Your task to perform on an android device: create a new album in the google photos Image 0: 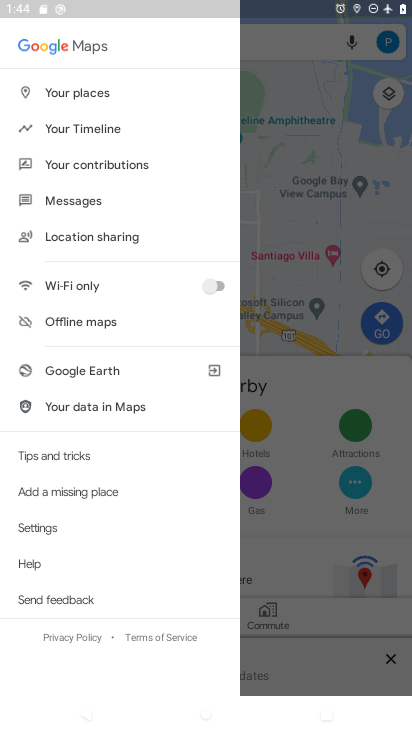
Step 0: press home button
Your task to perform on an android device: create a new album in the google photos Image 1: 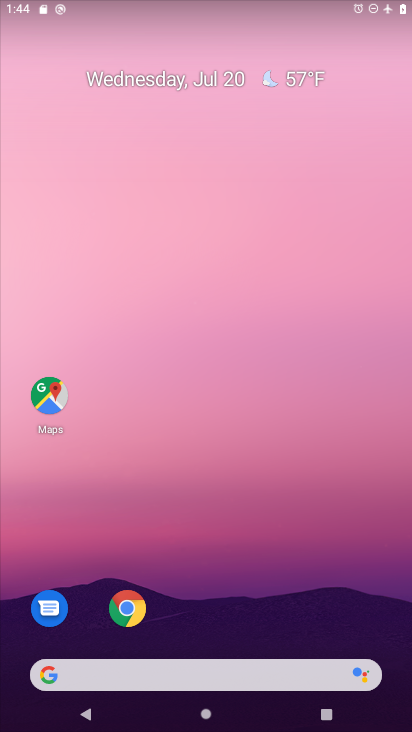
Step 1: drag from (226, 697) to (187, 223)
Your task to perform on an android device: create a new album in the google photos Image 2: 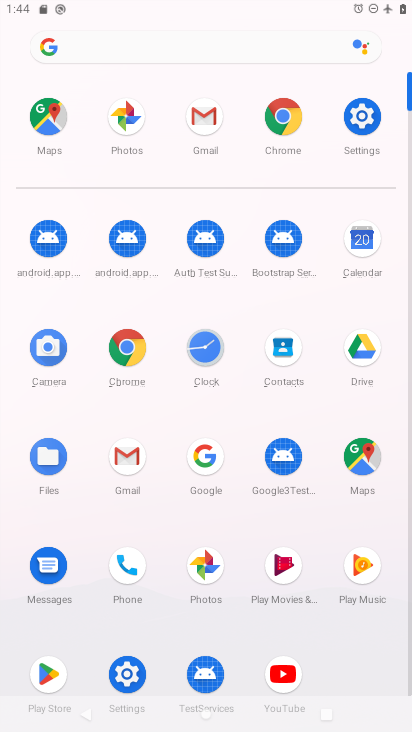
Step 2: click (127, 112)
Your task to perform on an android device: create a new album in the google photos Image 3: 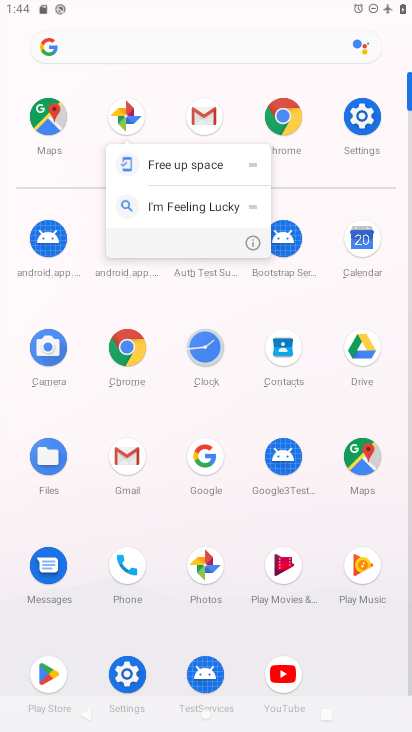
Step 3: click (127, 112)
Your task to perform on an android device: create a new album in the google photos Image 4: 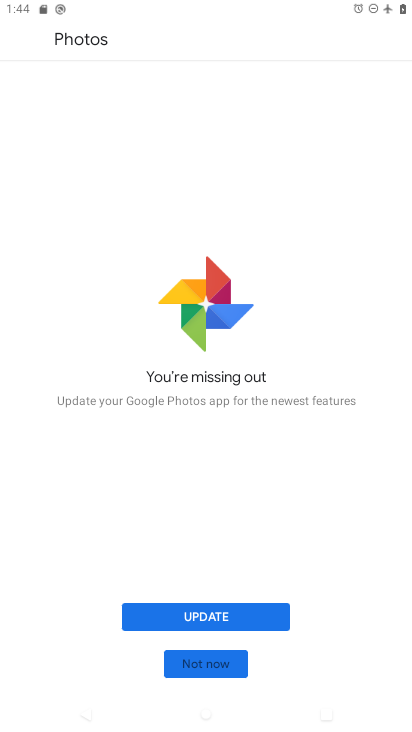
Step 4: click (227, 621)
Your task to perform on an android device: create a new album in the google photos Image 5: 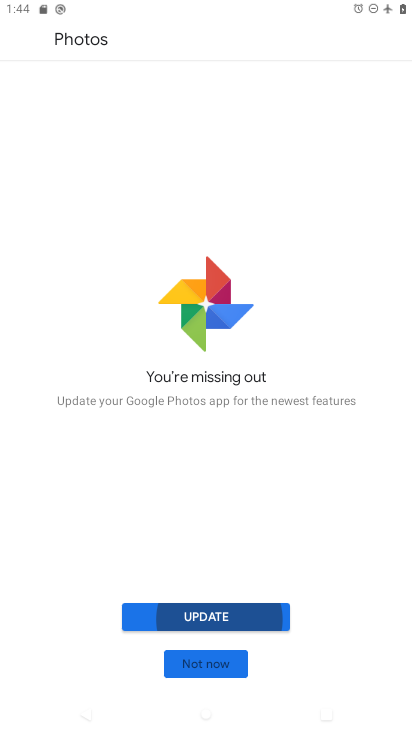
Step 5: click (227, 621)
Your task to perform on an android device: create a new album in the google photos Image 6: 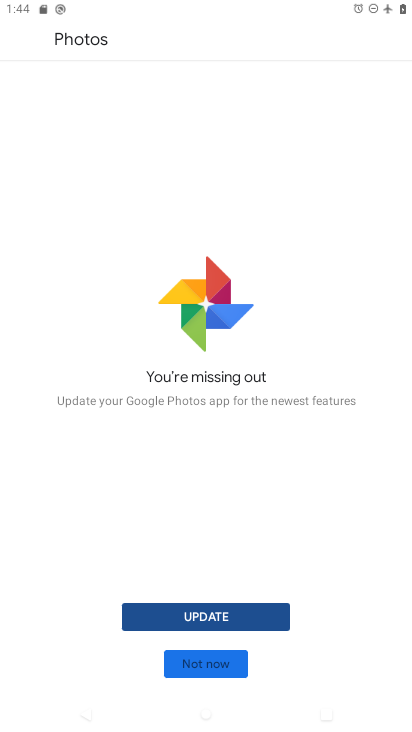
Step 6: click (227, 621)
Your task to perform on an android device: create a new album in the google photos Image 7: 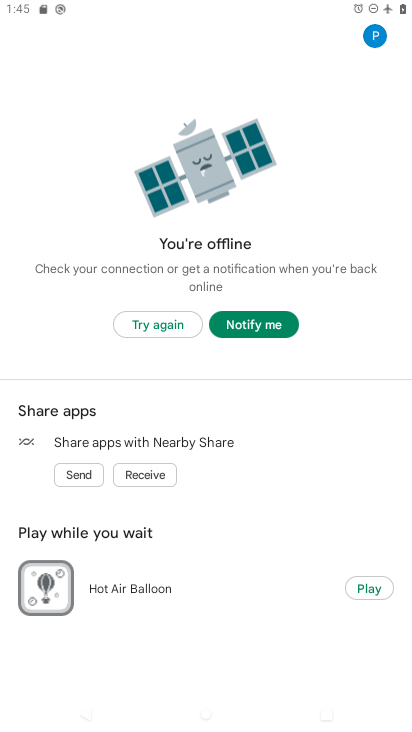
Step 7: task complete